Your task to perform on an android device: Show me the best rated vacuum on Walmart. Image 0: 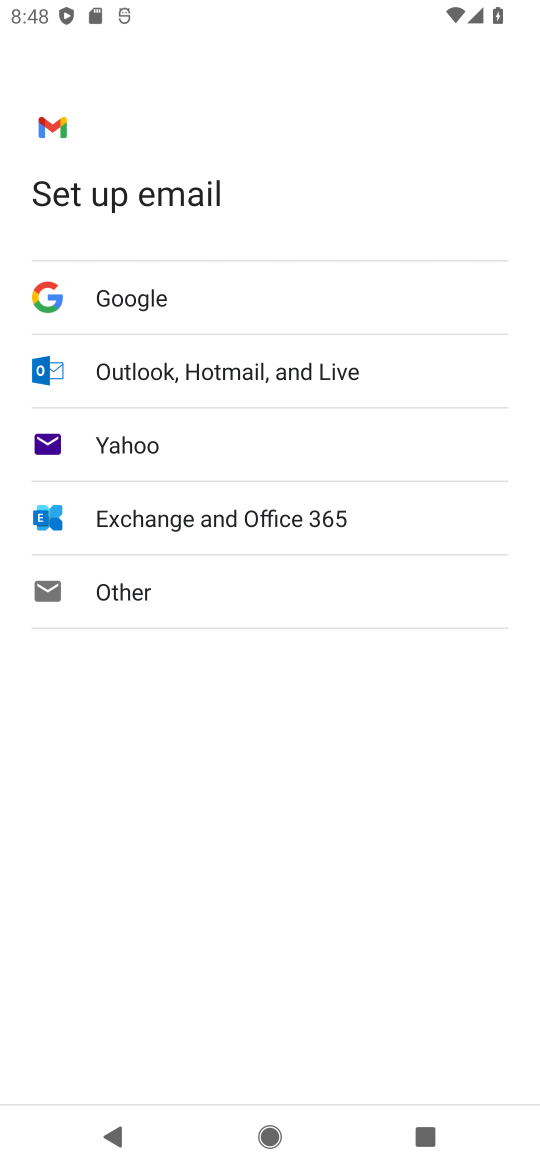
Step 0: press home button
Your task to perform on an android device: Show me the best rated vacuum on Walmart. Image 1: 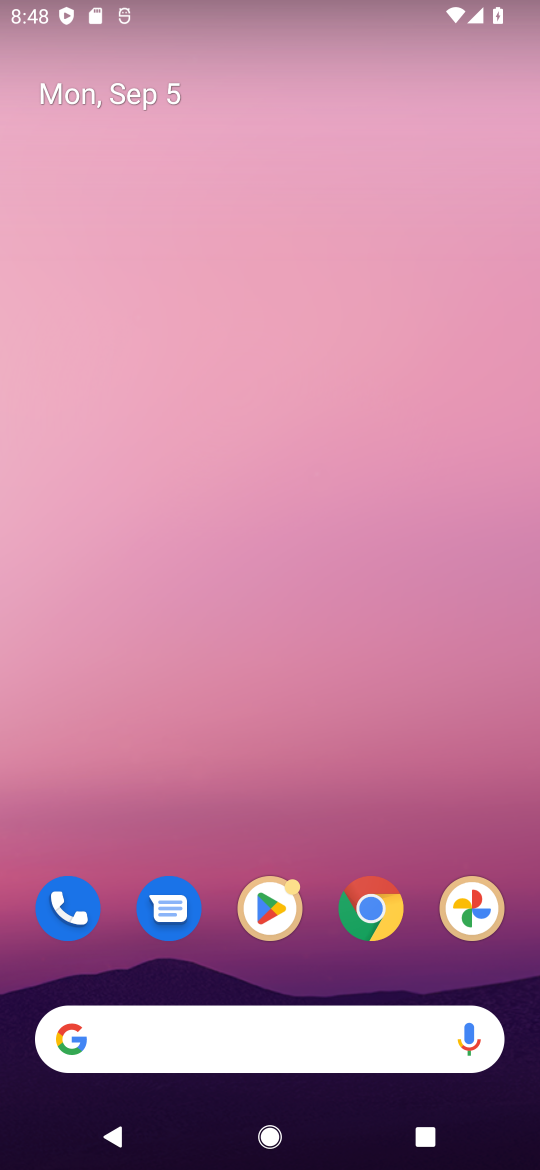
Step 1: click (330, 41)
Your task to perform on an android device: Show me the best rated vacuum on Walmart. Image 2: 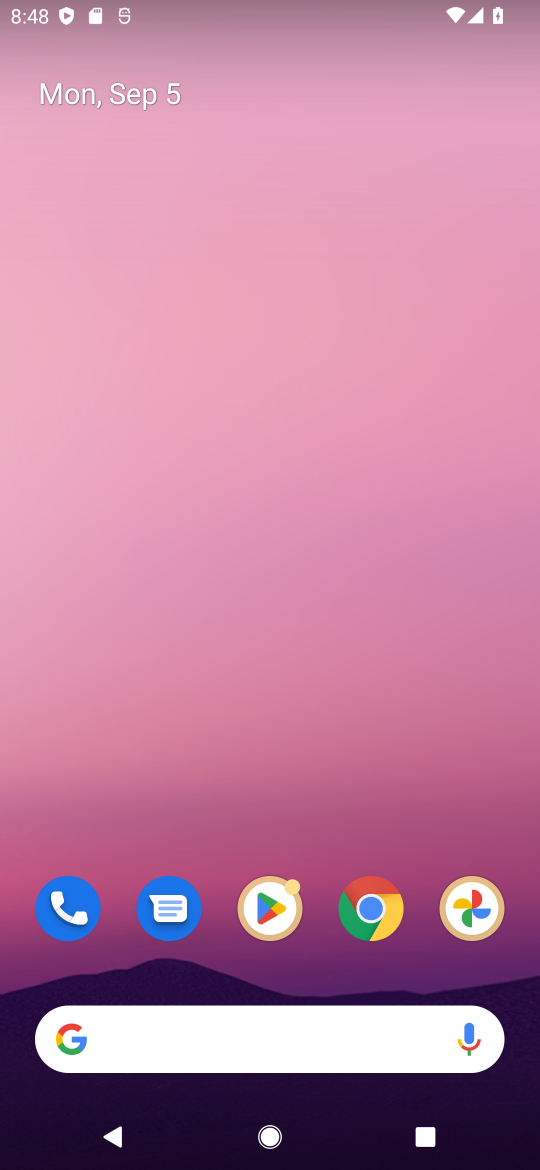
Step 2: click (390, 938)
Your task to perform on an android device: Show me the best rated vacuum on Walmart. Image 3: 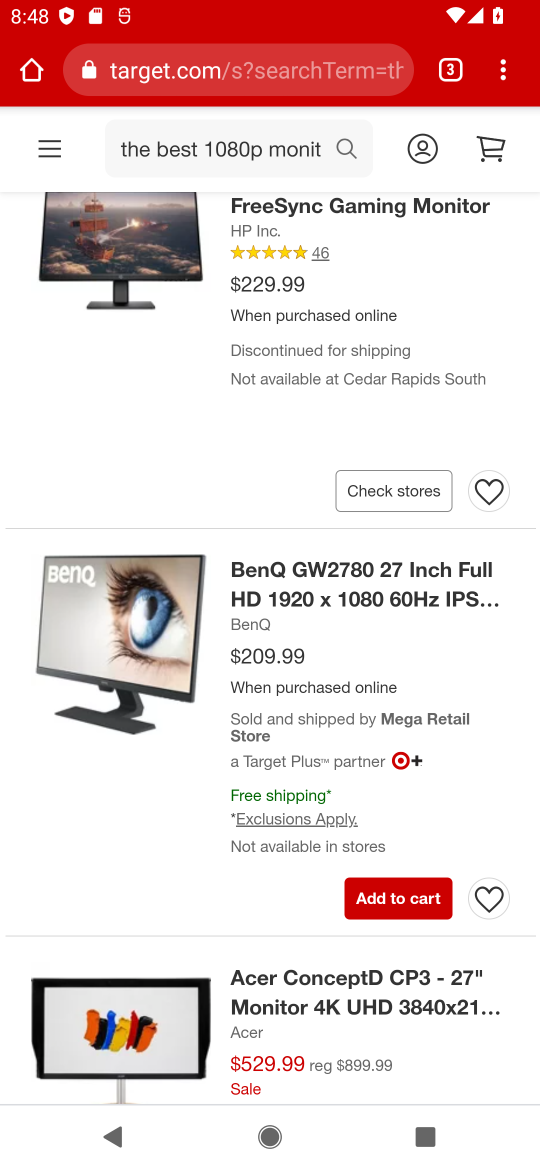
Step 3: click (438, 85)
Your task to perform on an android device: Show me the best rated vacuum on Walmart. Image 4: 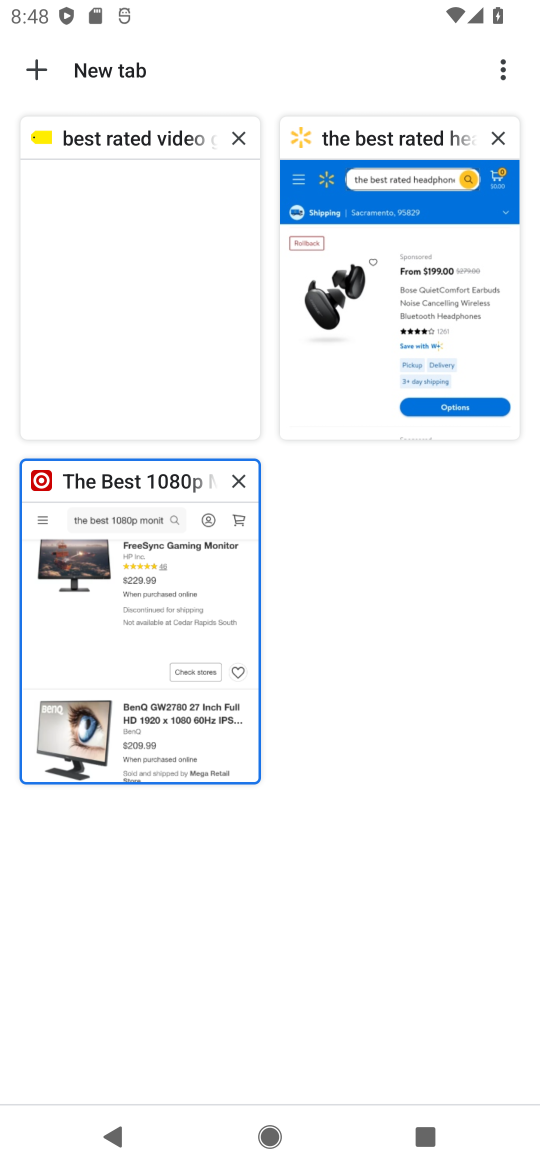
Step 4: click (32, 68)
Your task to perform on an android device: Show me the best rated vacuum on Walmart. Image 5: 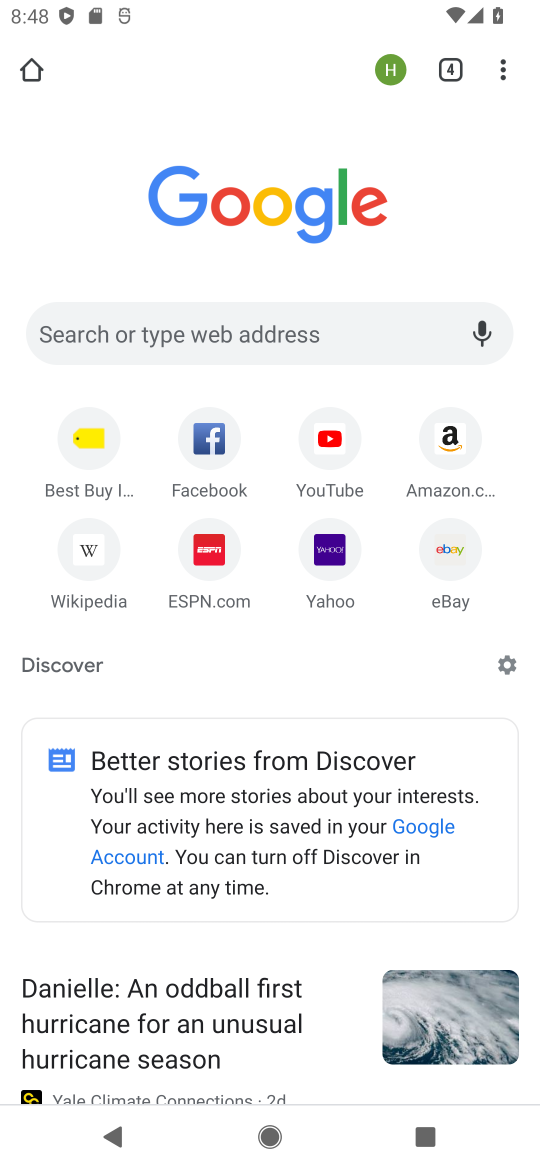
Step 5: click (212, 342)
Your task to perform on an android device: Show me the best rated vacuum on Walmart. Image 6: 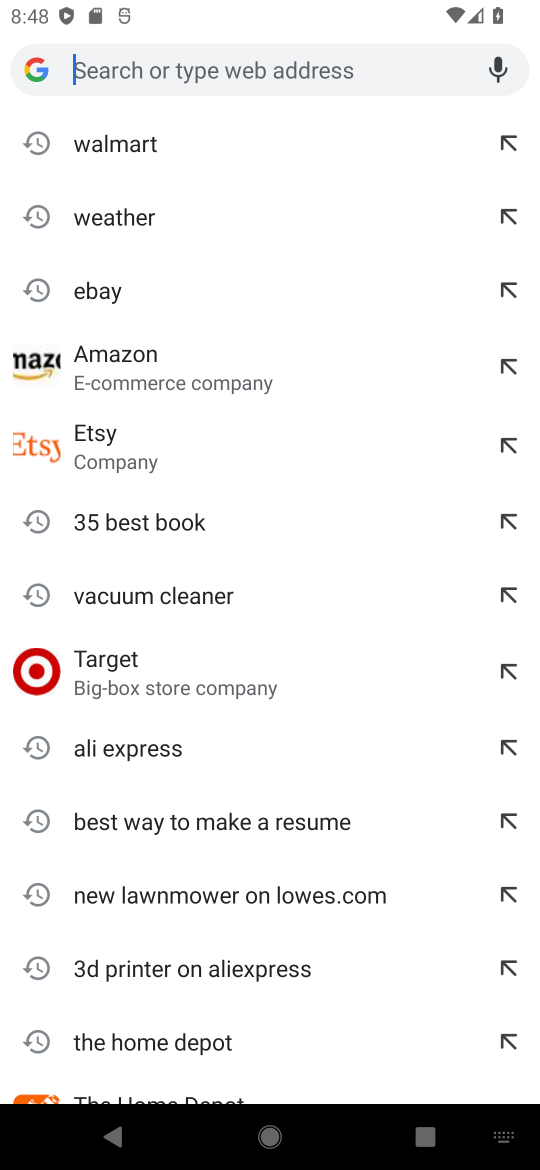
Step 6: type "Walmart"
Your task to perform on an android device: Show me the best rated vacuum on Walmart. Image 7: 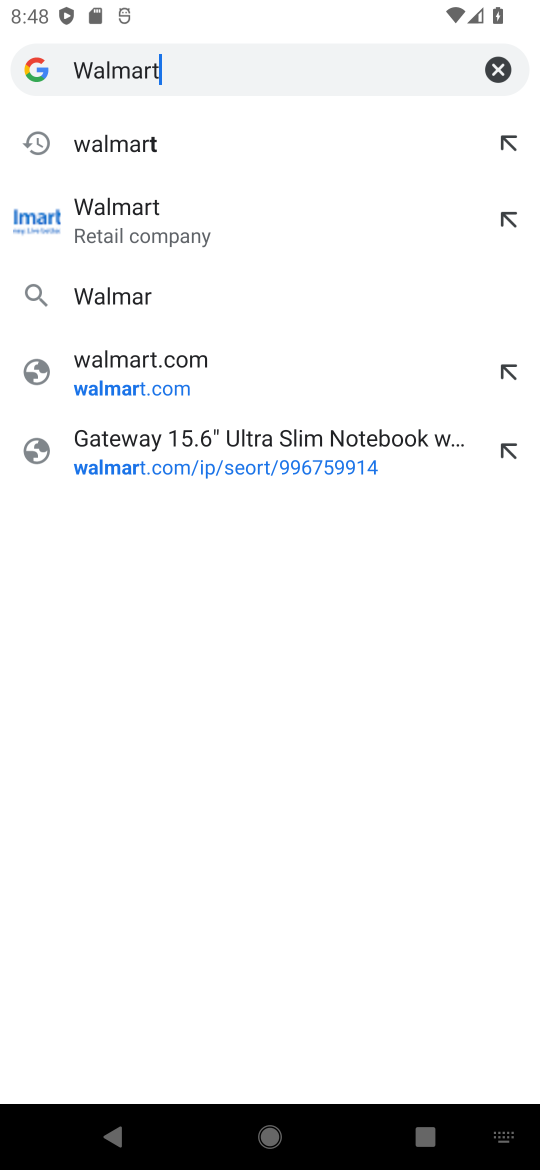
Step 7: type ""
Your task to perform on an android device: Show me the best rated vacuum on Walmart. Image 8: 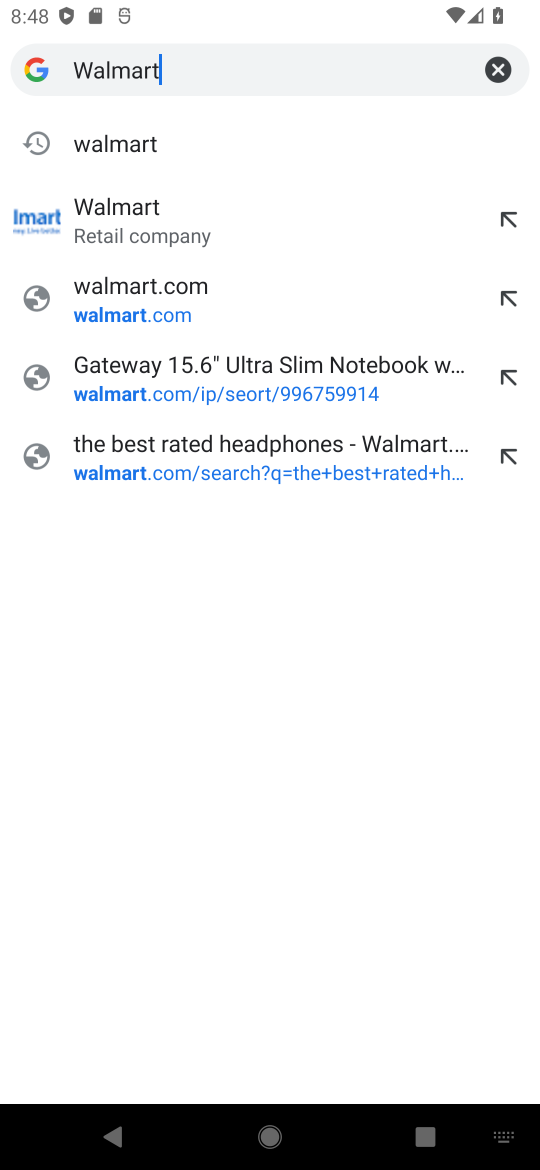
Step 8: click (80, 104)
Your task to perform on an android device: Show me the best rated vacuum on Walmart. Image 9: 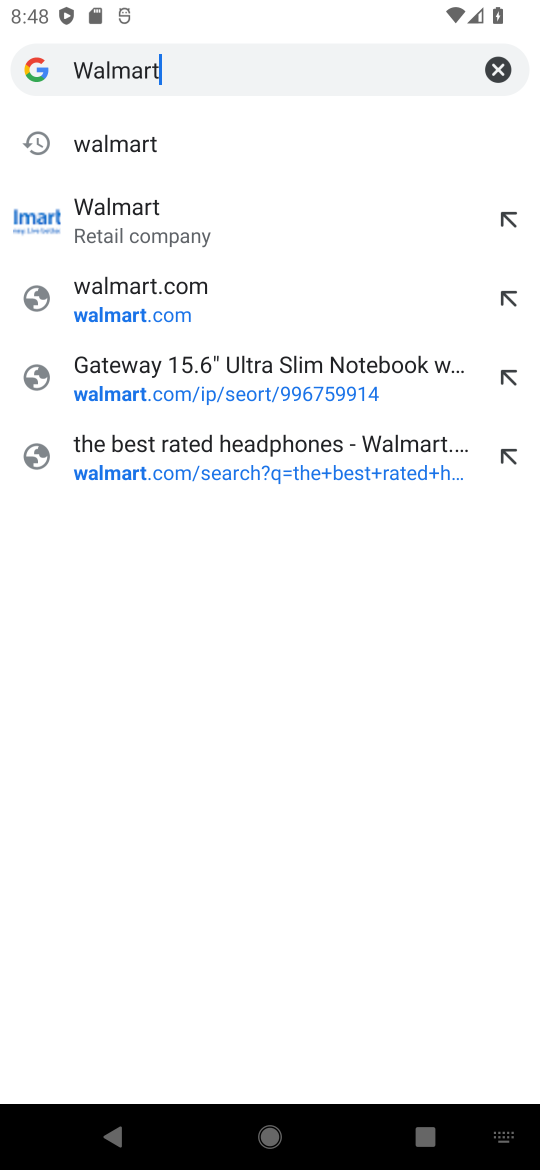
Step 9: click (104, 128)
Your task to perform on an android device: Show me the best rated vacuum on Walmart. Image 10: 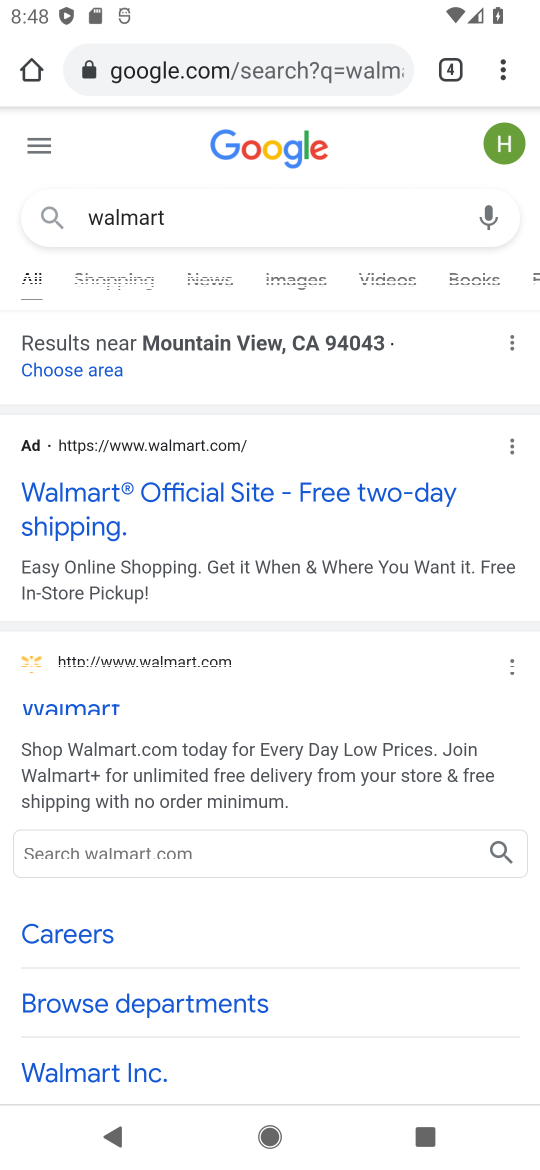
Step 10: click (209, 500)
Your task to perform on an android device: Show me the best rated vacuum on Walmart. Image 11: 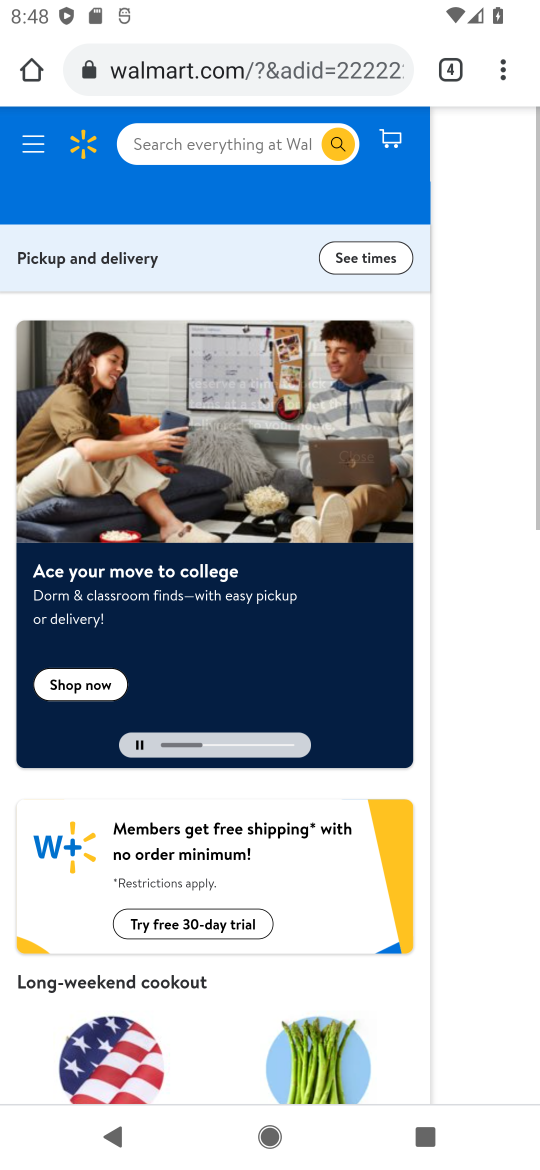
Step 11: click (288, 155)
Your task to perform on an android device: Show me the best rated vacuum on Walmart. Image 12: 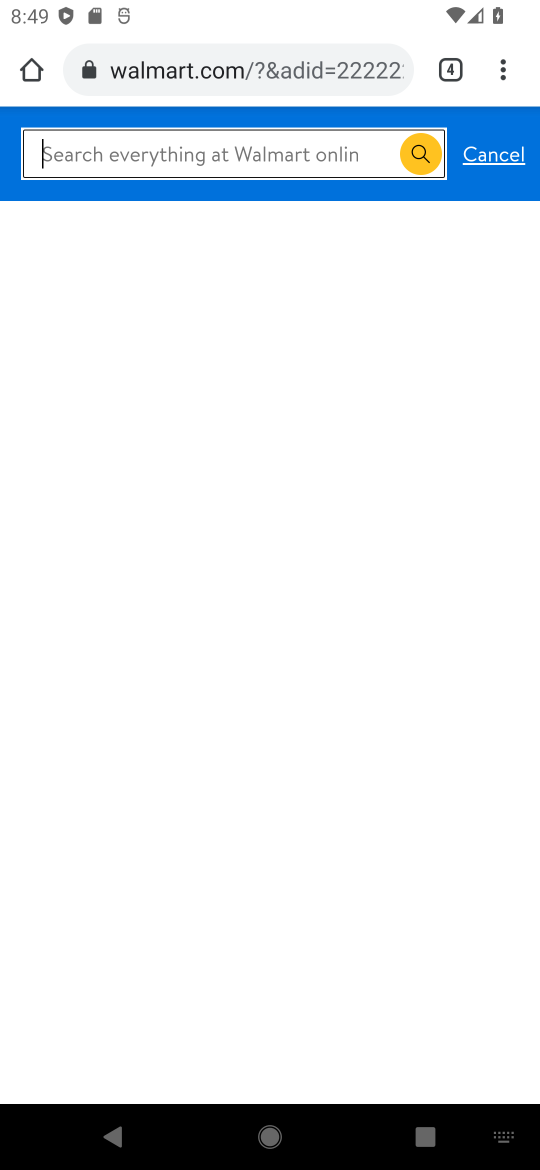
Step 12: type "the best rated vacuum"
Your task to perform on an android device: Show me the best rated vacuum on Walmart. Image 13: 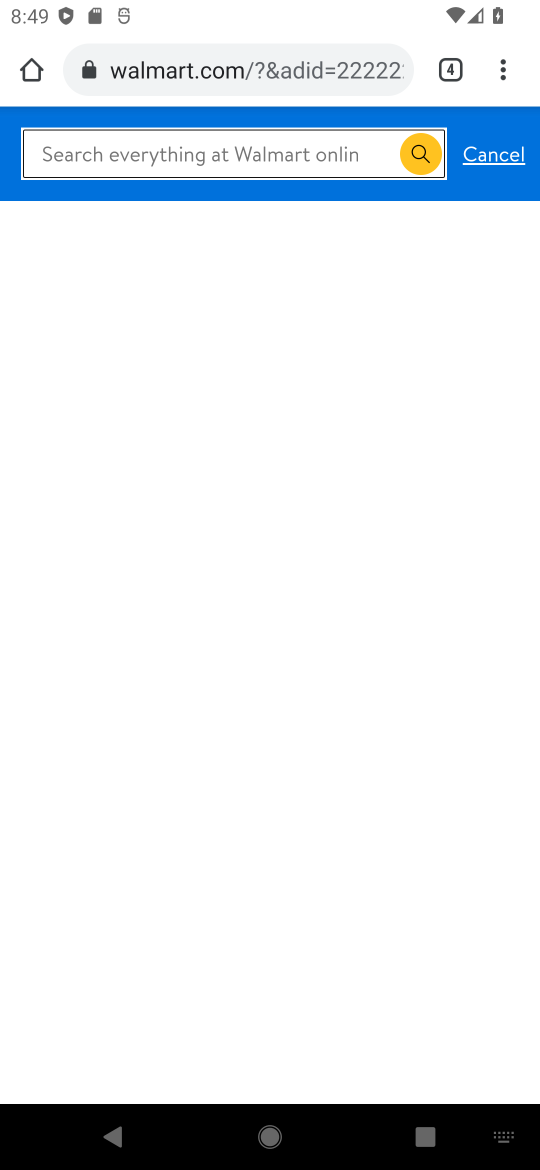
Step 13: type ""
Your task to perform on an android device: Show me the best rated vacuum on Walmart. Image 14: 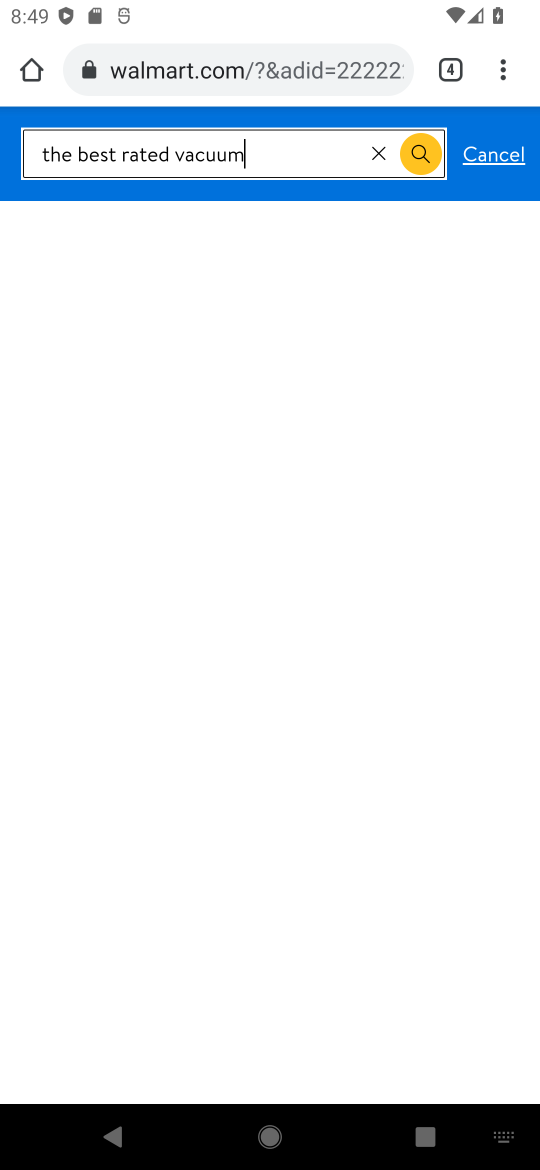
Step 14: click (409, 166)
Your task to perform on an android device: Show me the best rated vacuum on Walmart. Image 15: 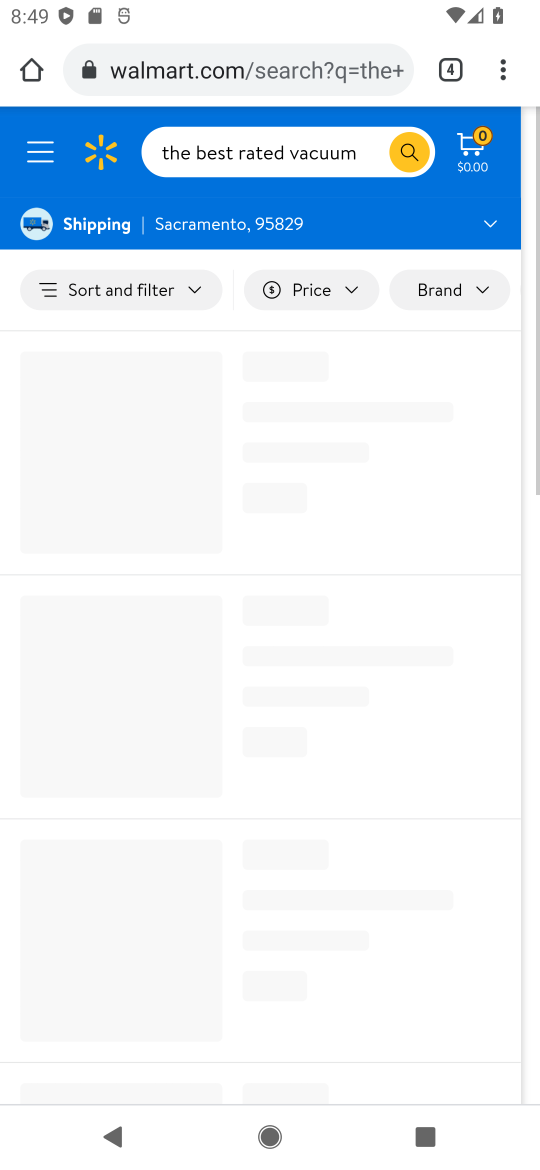
Step 15: task complete